Your task to perform on an android device: Go to notification settings Image 0: 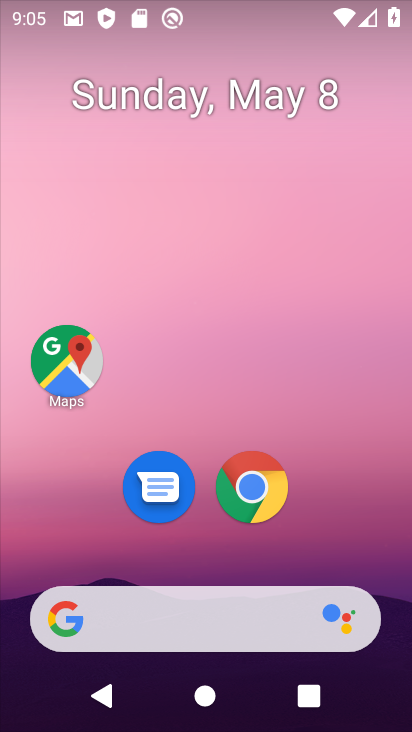
Step 0: drag from (299, 514) to (310, 23)
Your task to perform on an android device: Go to notification settings Image 1: 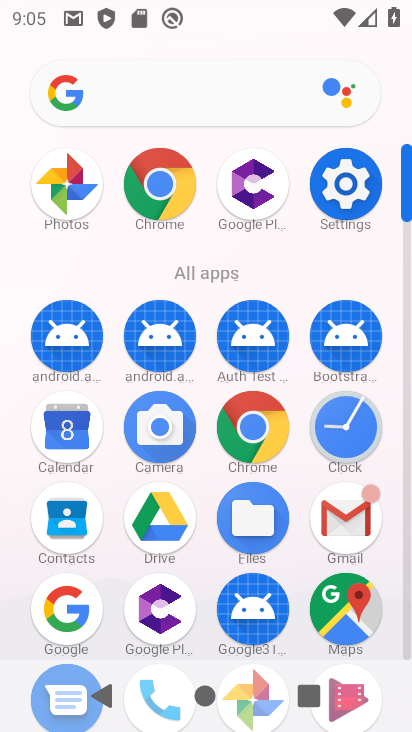
Step 1: click (360, 179)
Your task to perform on an android device: Go to notification settings Image 2: 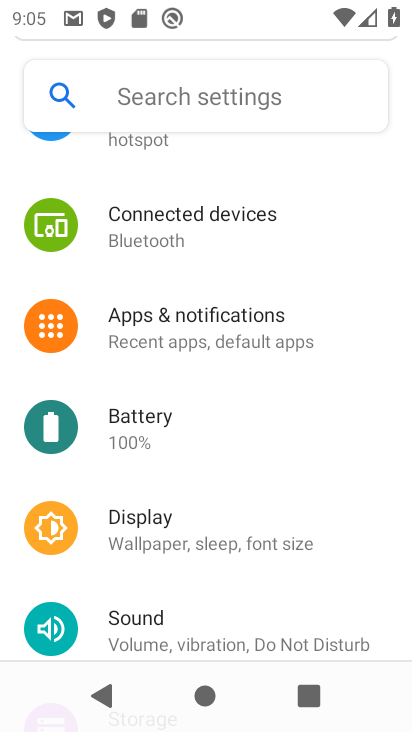
Step 2: click (196, 314)
Your task to perform on an android device: Go to notification settings Image 3: 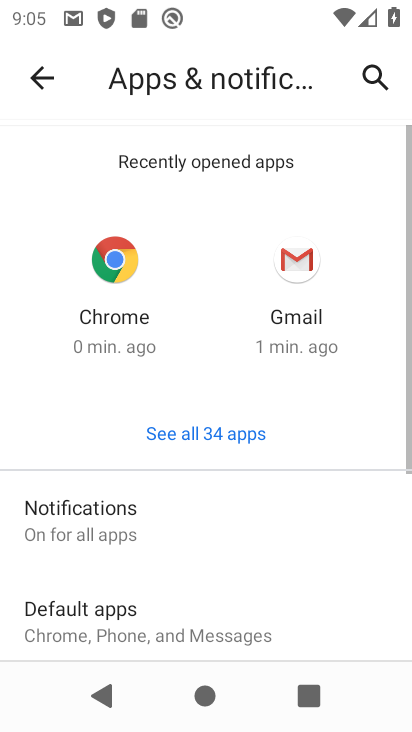
Step 3: click (109, 508)
Your task to perform on an android device: Go to notification settings Image 4: 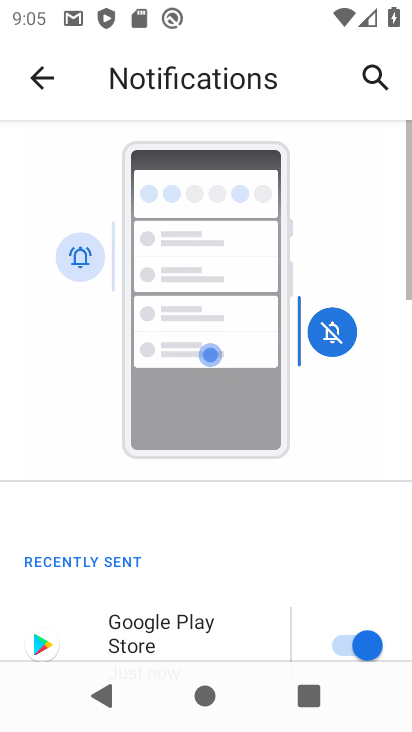
Step 4: task complete